Your task to perform on an android device: View the shopping cart on walmart. Image 0: 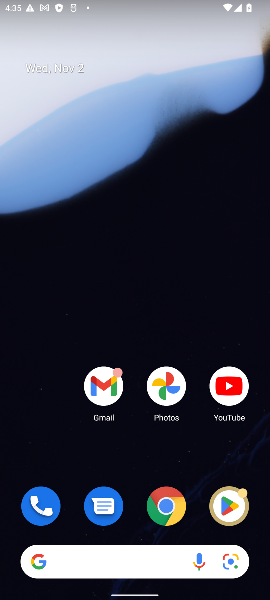
Step 0: click (164, 518)
Your task to perform on an android device: View the shopping cart on walmart. Image 1: 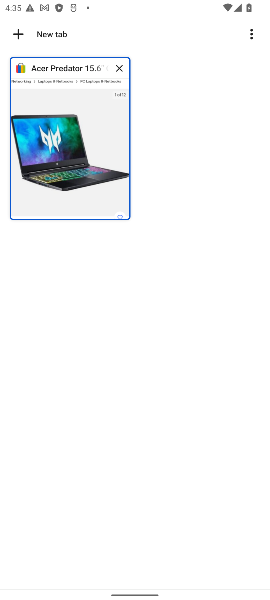
Step 1: click (50, 189)
Your task to perform on an android device: View the shopping cart on walmart. Image 2: 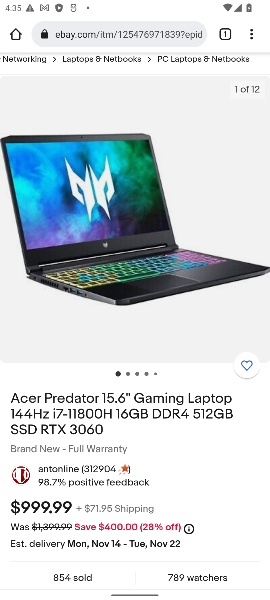
Step 2: click (130, 38)
Your task to perform on an android device: View the shopping cart on walmart. Image 3: 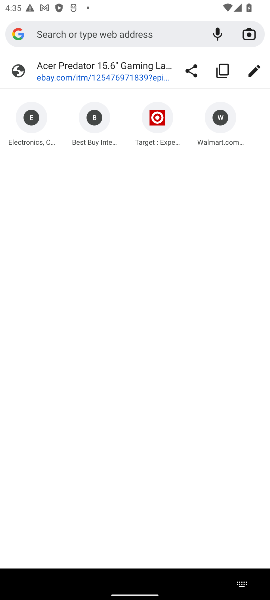
Step 3: type "walmart"
Your task to perform on an android device: View the shopping cart on walmart. Image 4: 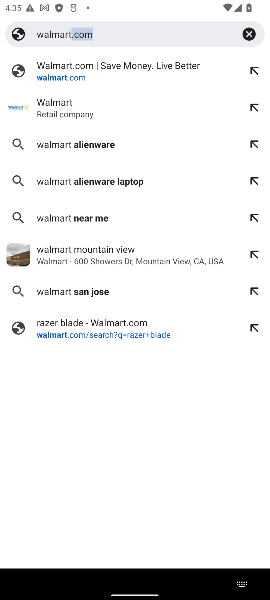
Step 4: press enter
Your task to perform on an android device: View the shopping cart on walmart. Image 5: 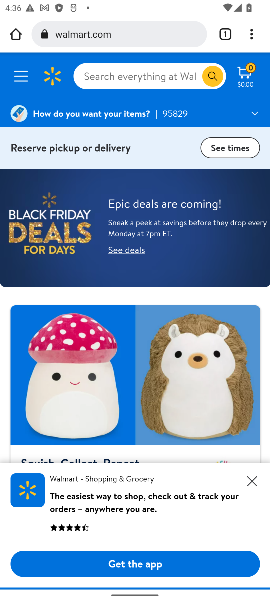
Step 5: click (246, 68)
Your task to perform on an android device: View the shopping cart on walmart. Image 6: 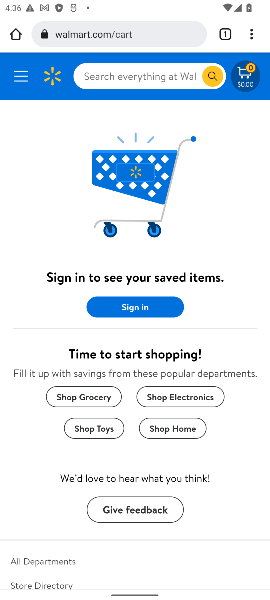
Step 6: task complete